Your task to perform on an android device: set the timer Image 0: 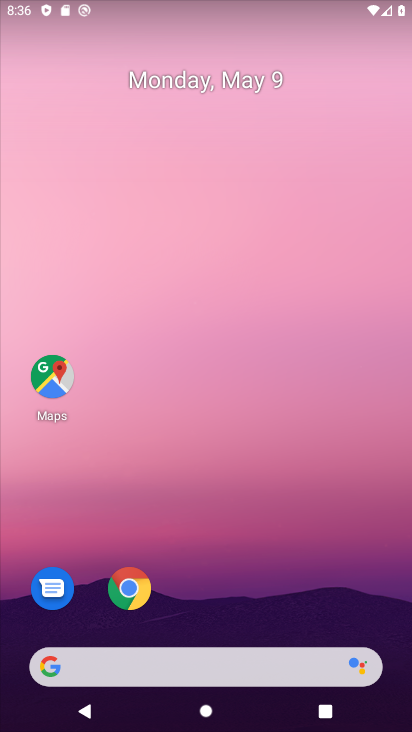
Step 0: drag from (200, 507) to (239, 88)
Your task to perform on an android device: set the timer Image 1: 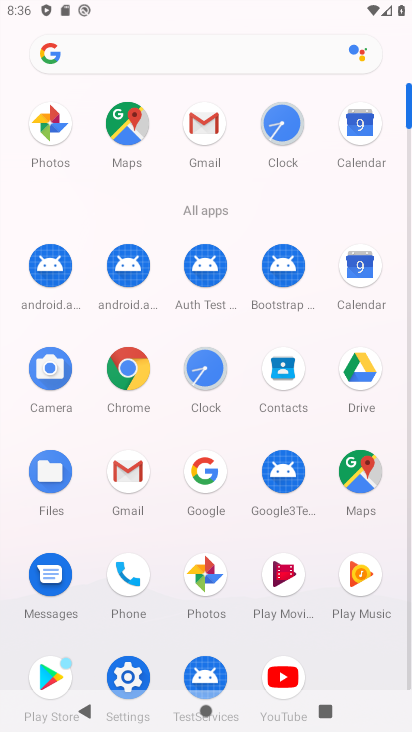
Step 1: click (209, 361)
Your task to perform on an android device: set the timer Image 2: 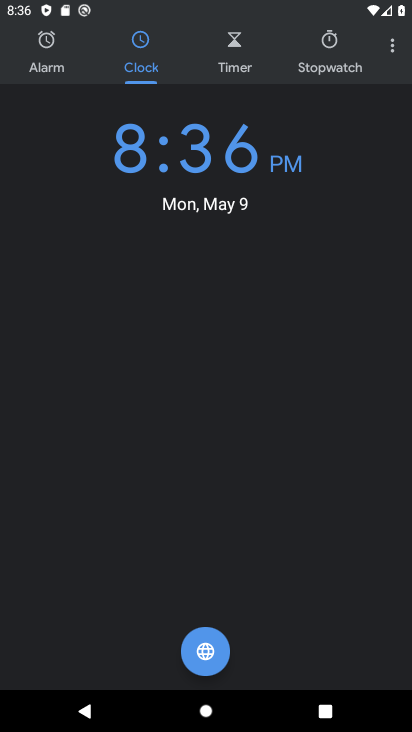
Step 2: click (231, 53)
Your task to perform on an android device: set the timer Image 3: 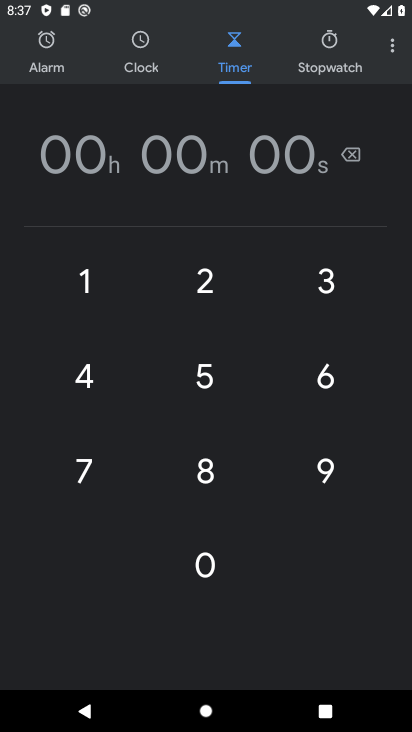
Step 3: click (216, 366)
Your task to perform on an android device: set the timer Image 4: 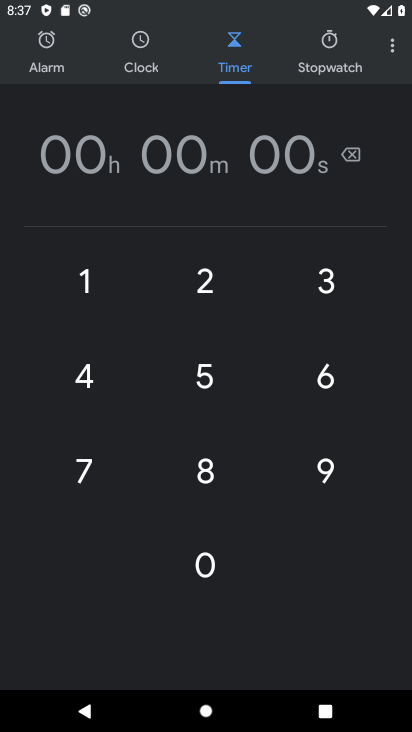
Step 4: click (216, 366)
Your task to perform on an android device: set the timer Image 5: 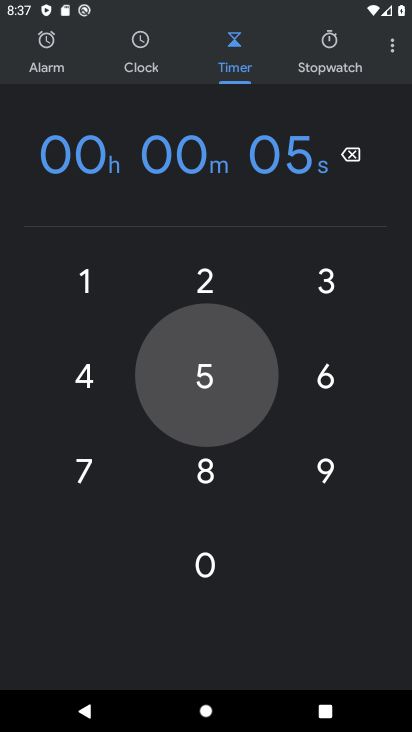
Step 5: click (216, 366)
Your task to perform on an android device: set the timer Image 6: 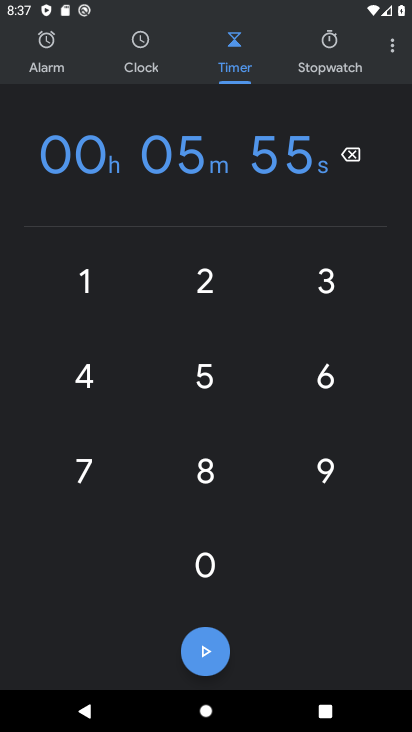
Step 6: click (189, 646)
Your task to perform on an android device: set the timer Image 7: 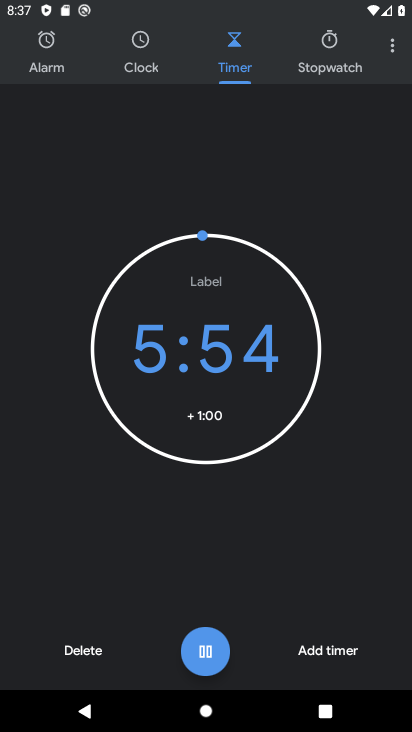
Step 7: task complete